Your task to perform on an android device: Go to Yahoo.com Image 0: 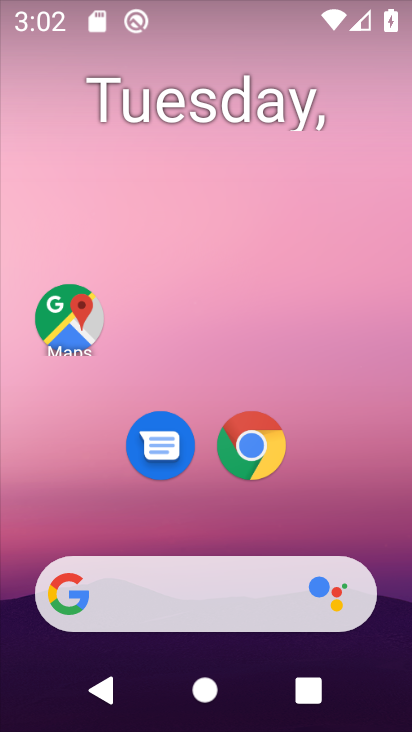
Step 0: click (243, 447)
Your task to perform on an android device: Go to Yahoo.com Image 1: 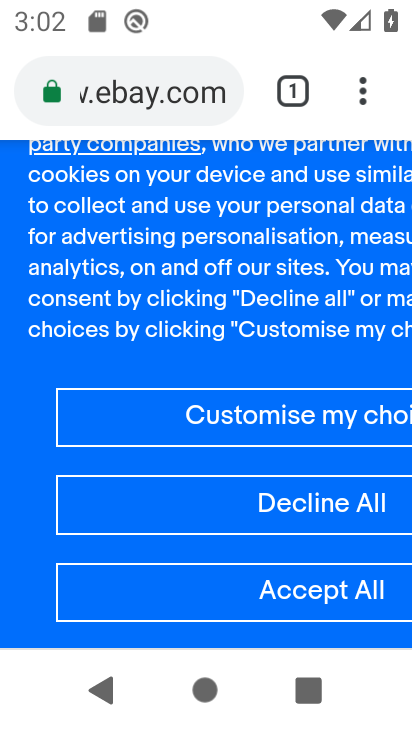
Step 1: click (109, 94)
Your task to perform on an android device: Go to Yahoo.com Image 2: 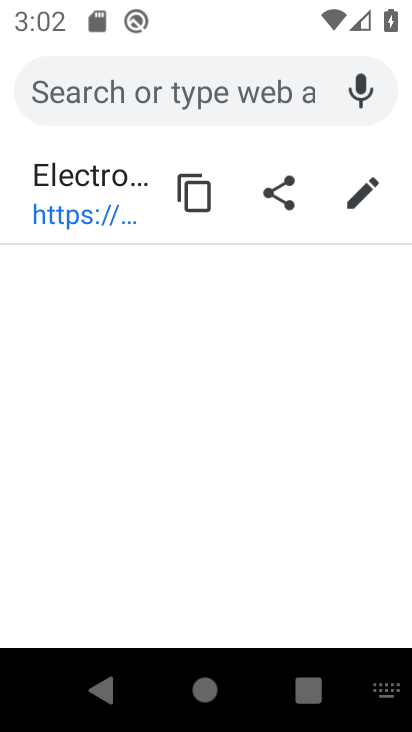
Step 2: type "yahoo.com"
Your task to perform on an android device: Go to Yahoo.com Image 3: 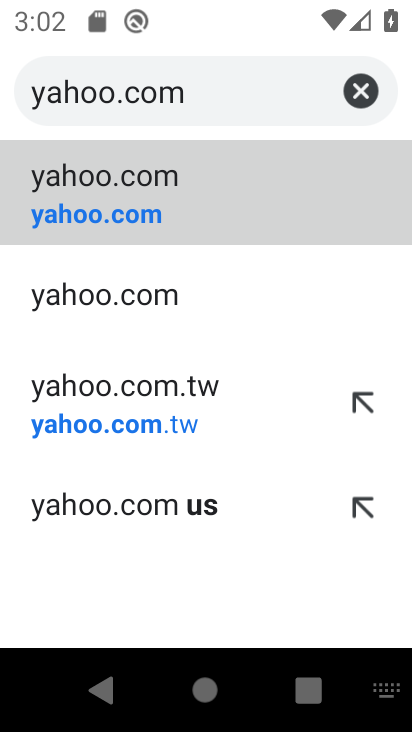
Step 3: click (88, 182)
Your task to perform on an android device: Go to Yahoo.com Image 4: 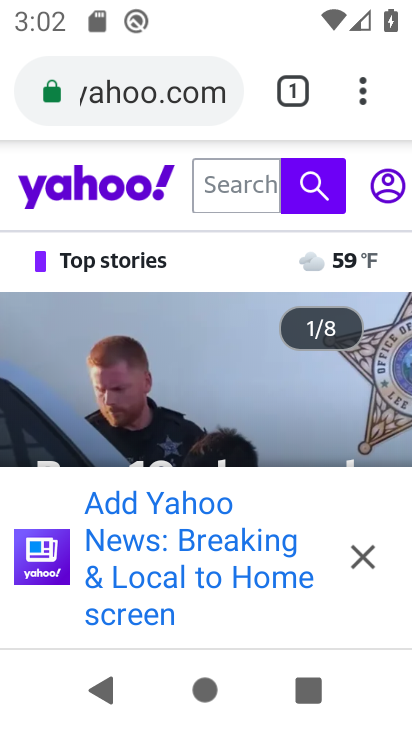
Step 4: task complete